Your task to perform on an android device: change notifications settings Image 0: 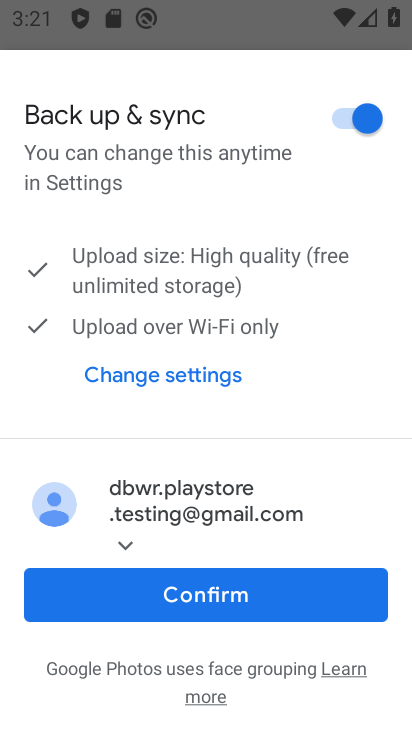
Step 0: press home button
Your task to perform on an android device: change notifications settings Image 1: 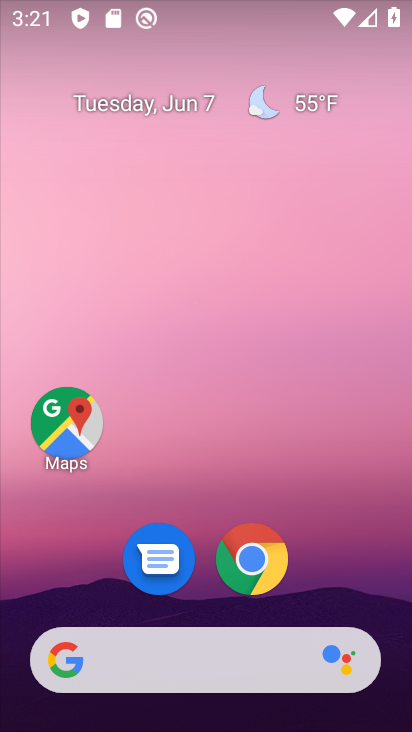
Step 1: drag from (214, 680) to (214, 140)
Your task to perform on an android device: change notifications settings Image 2: 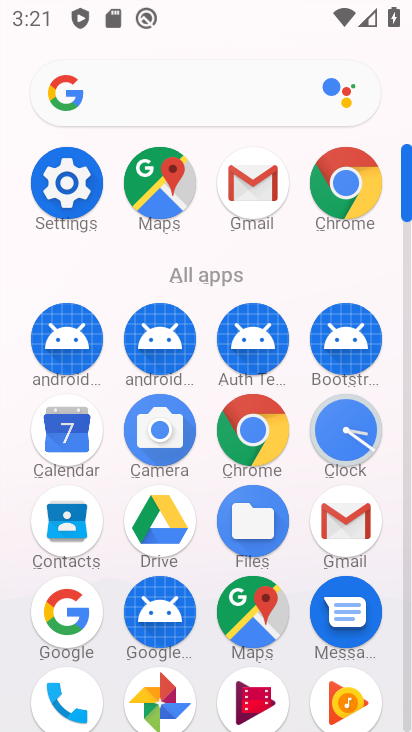
Step 2: click (68, 184)
Your task to perform on an android device: change notifications settings Image 3: 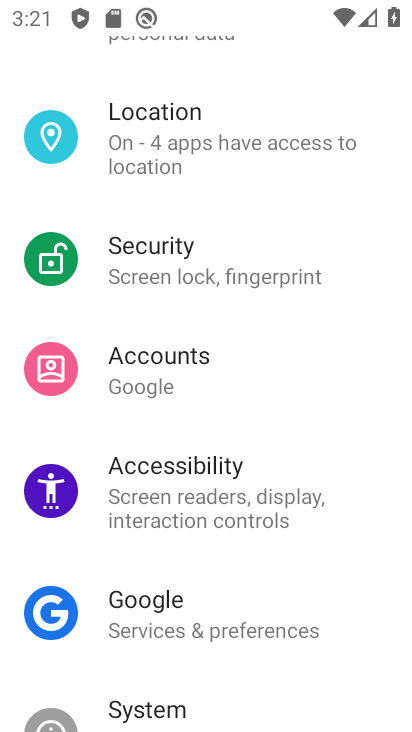
Step 3: drag from (245, 121) to (273, 548)
Your task to perform on an android device: change notifications settings Image 4: 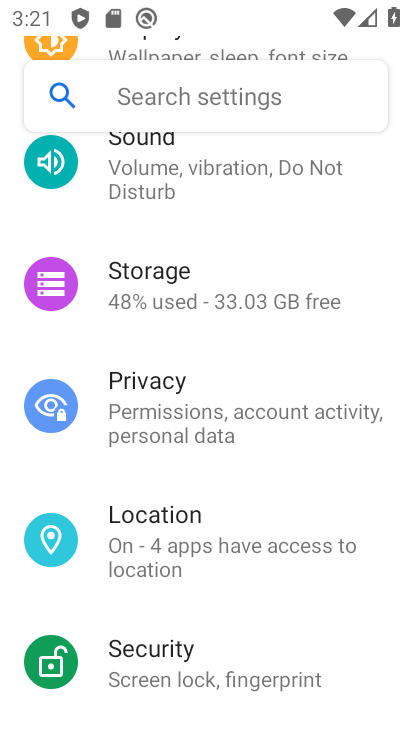
Step 4: drag from (215, 162) to (231, 366)
Your task to perform on an android device: change notifications settings Image 5: 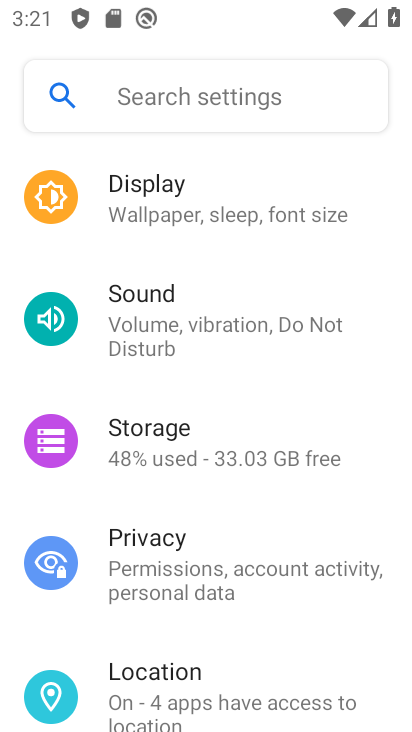
Step 5: drag from (226, 293) to (267, 578)
Your task to perform on an android device: change notifications settings Image 6: 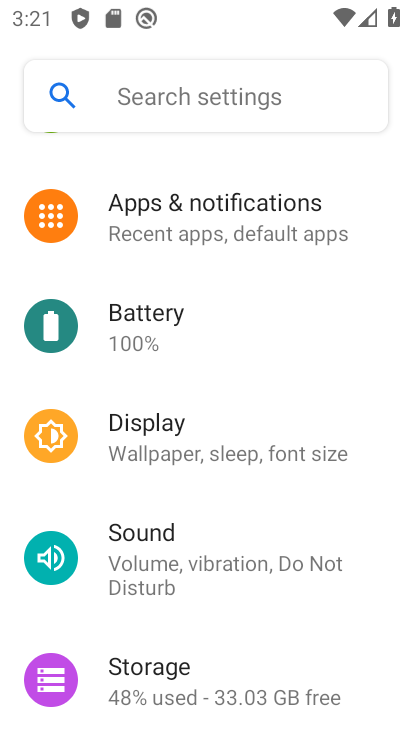
Step 6: click (230, 211)
Your task to perform on an android device: change notifications settings Image 7: 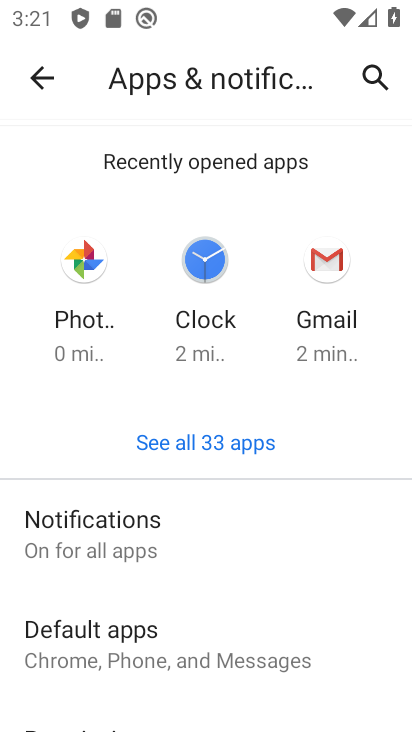
Step 7: click (84, 539)
Your task to perform on an android device: change notifications settings Image 8: 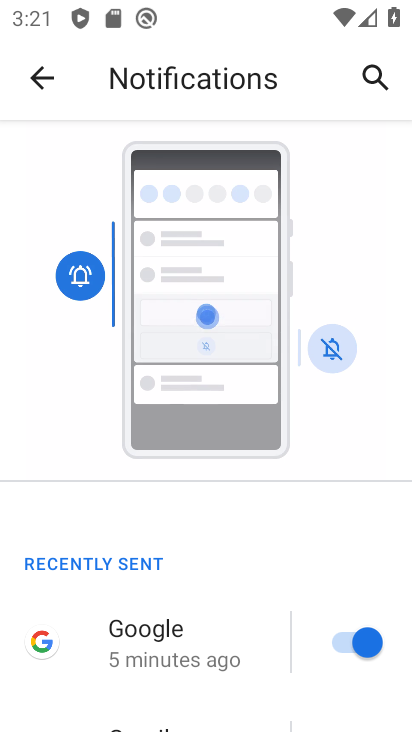
Step 8: drag from (194, 705) to (192, 355)
Your task to perform on an android device: change notifications settings Image 9: 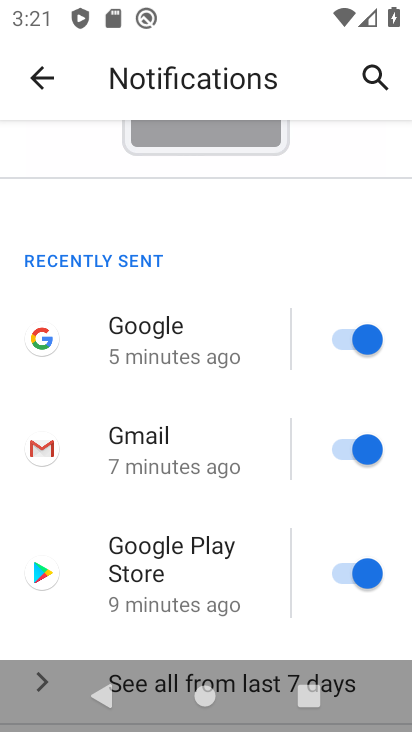
Step 9: drag from (204, 632) to (216, 273)
Your task to perform on an android device: change notifications settings Image 10: 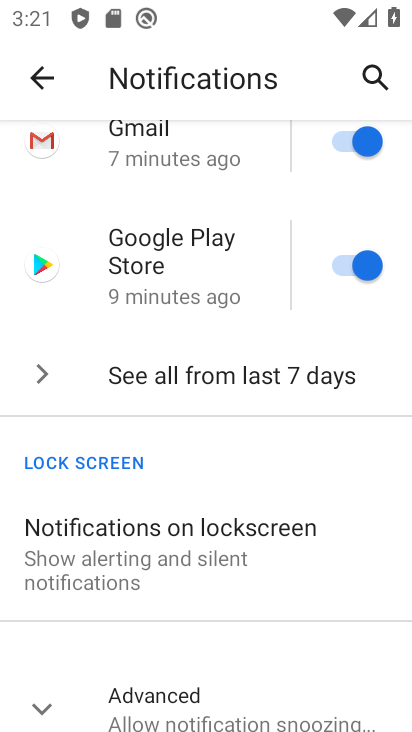
Step 10: drag from (211, 662) to (211, 381)
Your task to perform on an android device: change notifications settings Image 11: 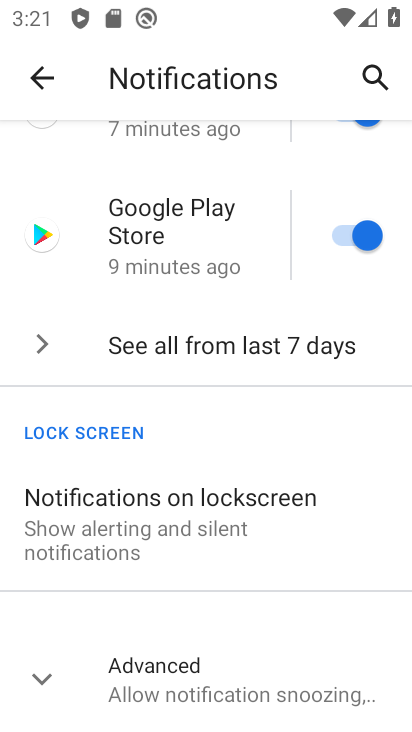
Step 11: click (143, 686)
Your task to perform on an android device: change notifications settings Image 12: 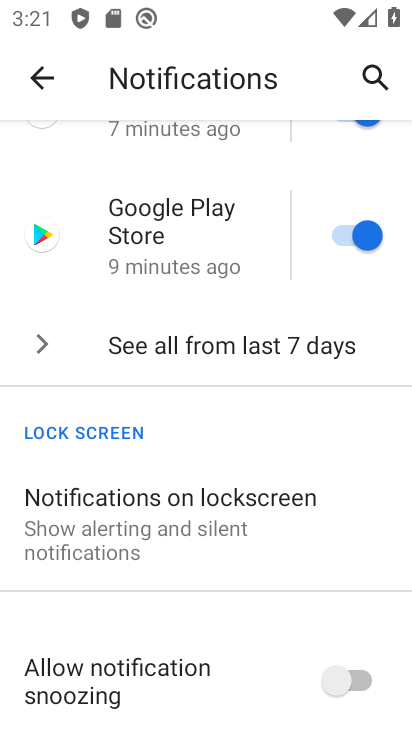
Step 12: click (357, 683)
Your task to perform on an android device: change notifications settings Image 13: 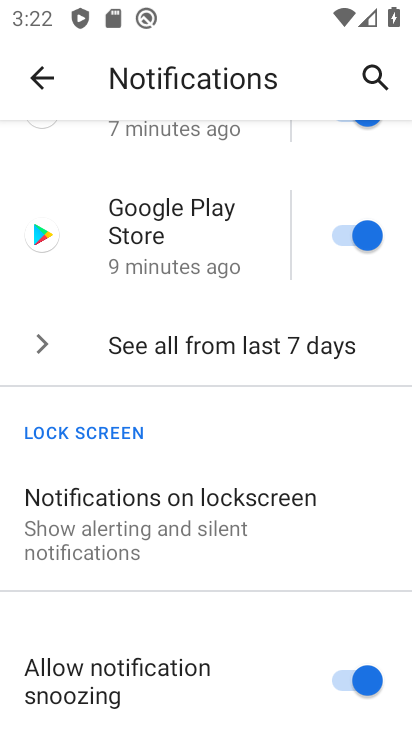
Step 13: task complete